Your task to perform on an android device: check data usage Image 0: 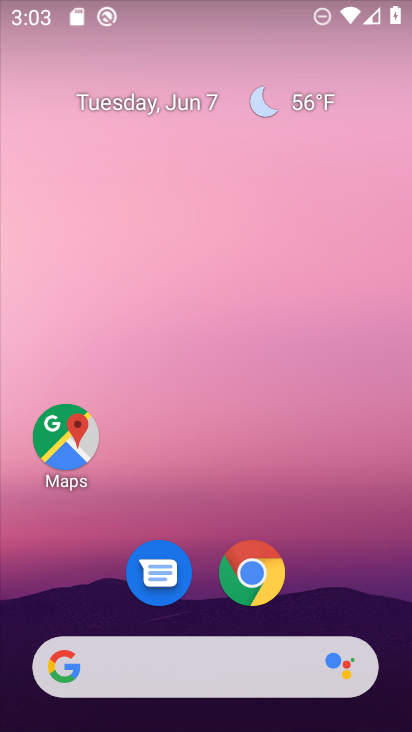
Step 0: drag from (333, 588) to (218, 4)
Your task to perform on an android device: check data usage Image 1: 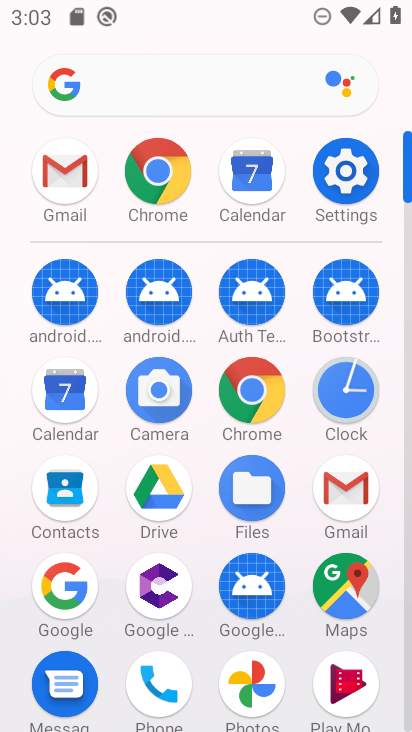
Step 1: click (342, 172)
Your task to perform on an android device: check data usage Image 2: 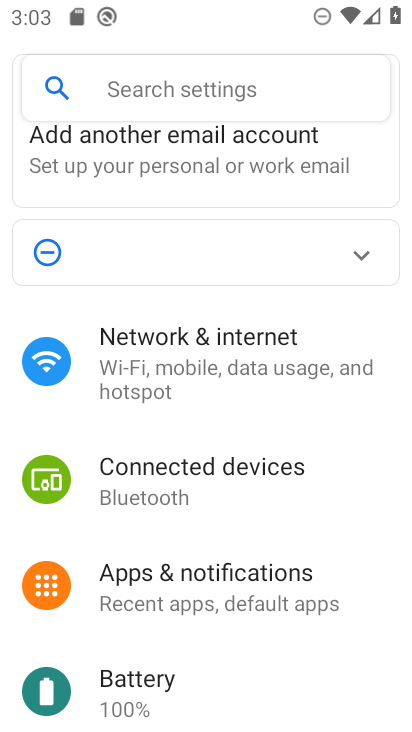
Step 2: click (268, 381)
Your task to perform on an android device: check data usage Image 3: 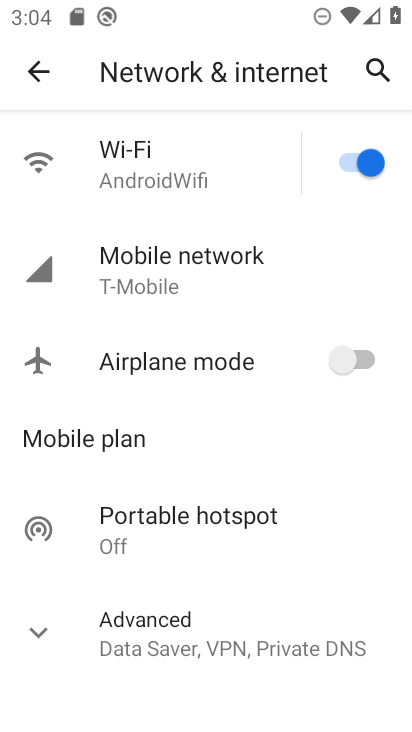
Step 3: click (229, 281)
Your task to perform on an android device: check data usage Image 4: 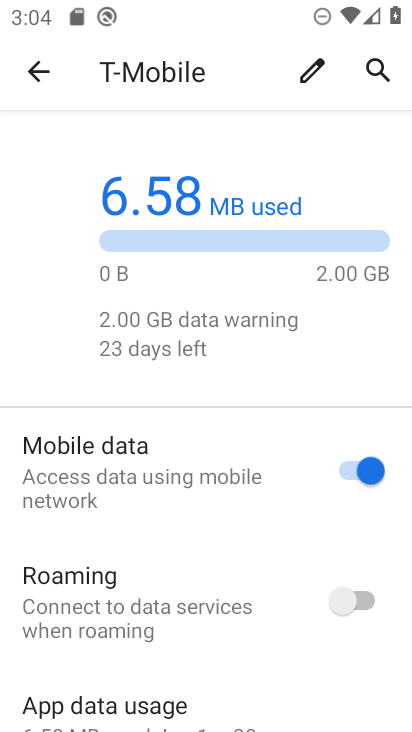
Step 4: drag from (156, 633) to (189, 342)
Your task to perform on an android device: check data usage Image 5: 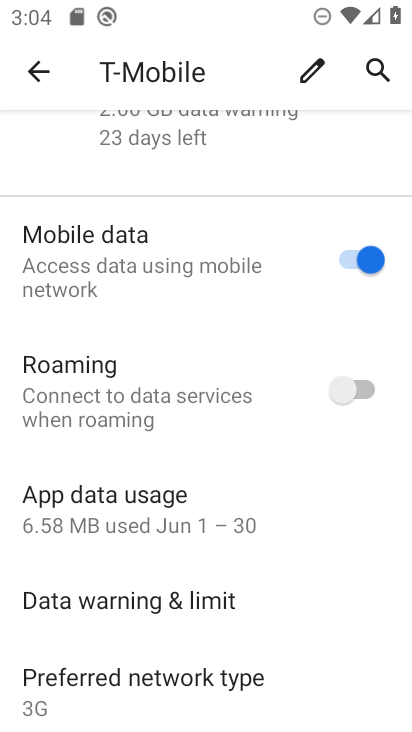
Step 5: click (148, 495)
Your task to perform on an android device: check data usage Image 6: 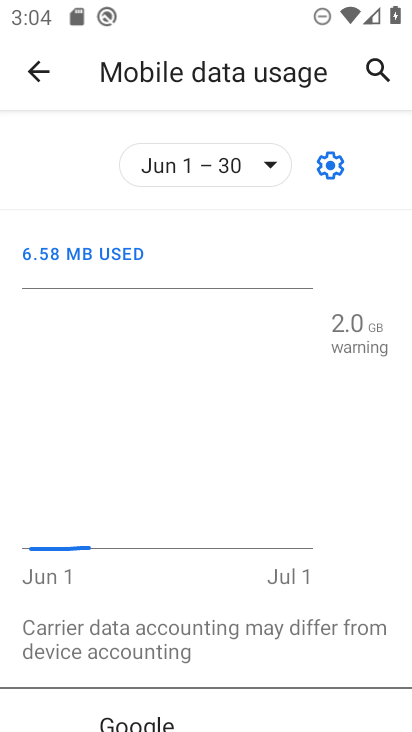
Step 6: task complete